Your task to perform on an android device: View the shopping cart on amazon. Search for logitech g502 on amazon, select the first entry, and add it to the cart. Image 0: 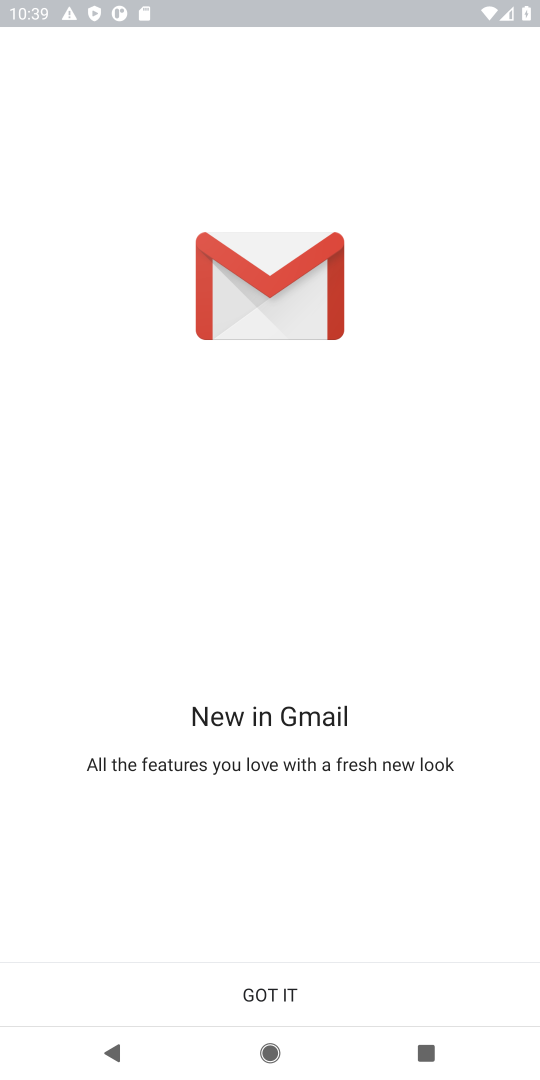
Step 0: press home button
Your task to perform on an android device: View the shopping cart on amazon. Search for logitech g502 on amazon, select the first entry, and add it to the cart. Image 1: 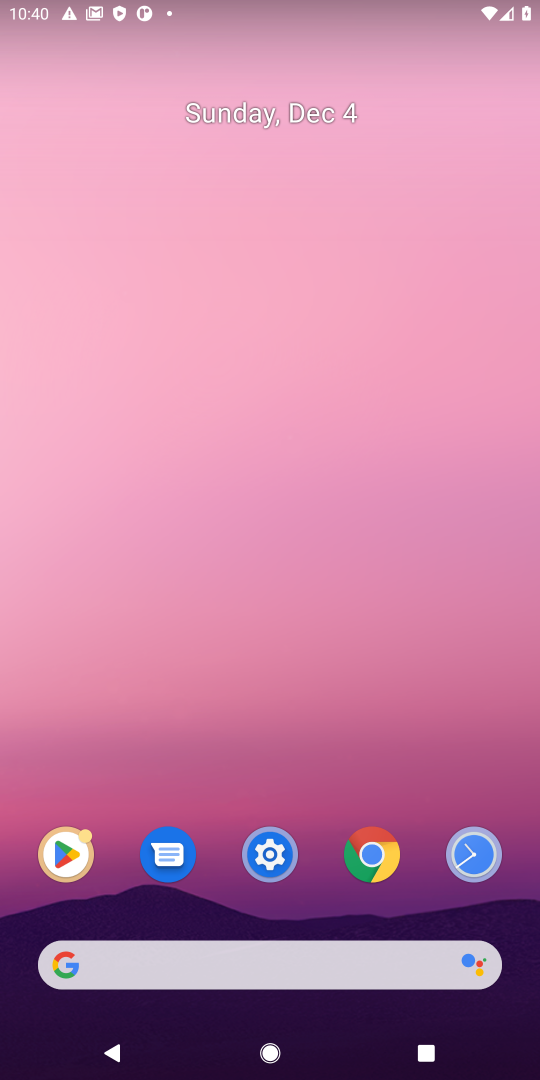
Step 1: click (229, 966)
Your task to perform on an android device: View the shopping cart on amazon. Search for logitech g502 on amazon, select the first entry, and add it to the cart. Image 2: 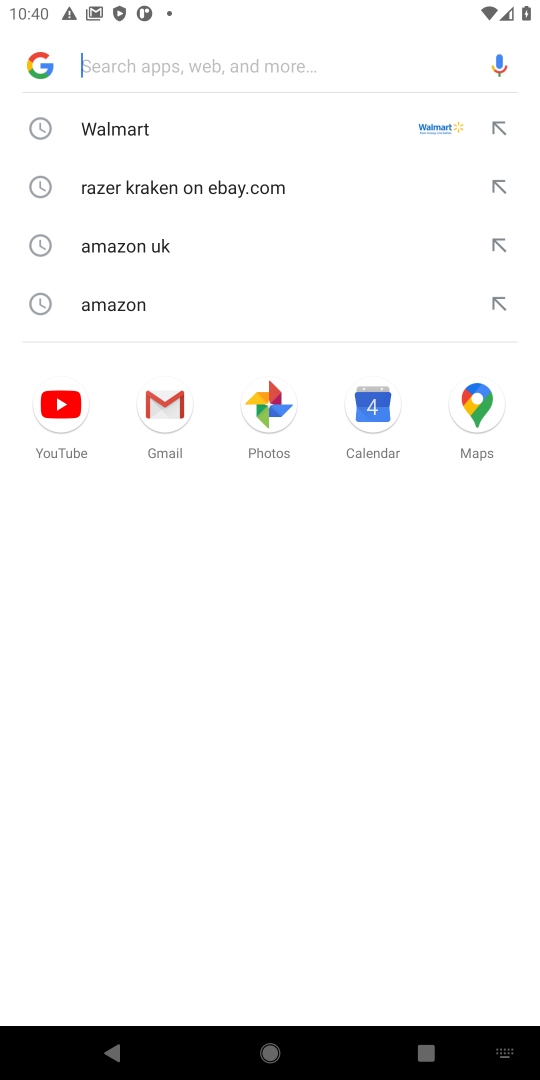
Step 2: type "amazon"
Your task to perform on an android device: View the shopping cart on amazon. Search for logitech g502 on amazon, select the first entry, and add it to the cart. Image 3: 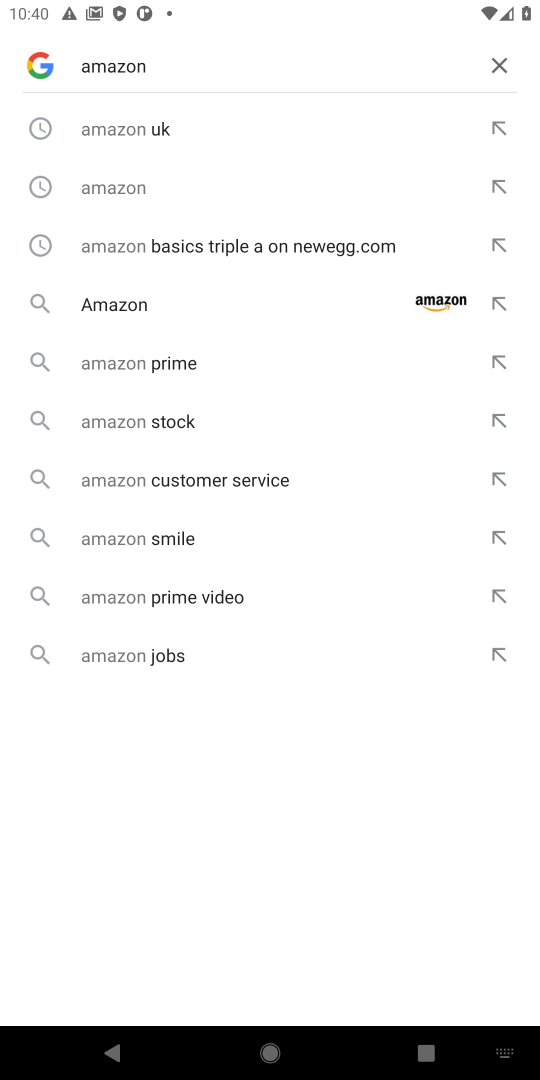
Step 3: click (96, 209)
Your task to perform on an android device: View the shopping cart on amazon. Search for logitech g502 on amazon, select the first entry, and add it to the cart. Image 4: 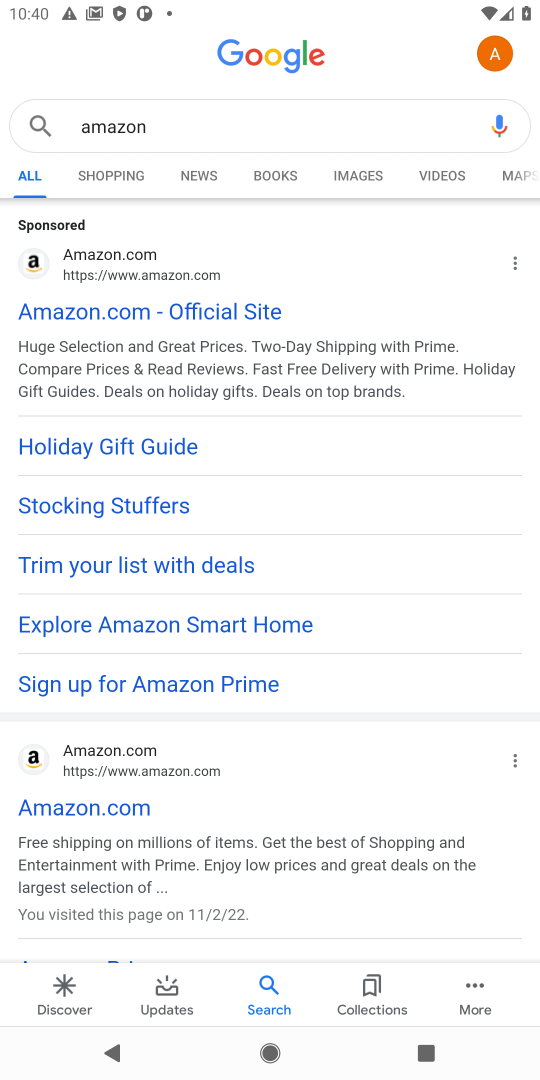
Step 4: click (160, 304)
Your task to perform on an android device: View the shopping cart on amazon. Search for logitech g502 on amazon, select the first entry, and add it to the cart. Image 5: 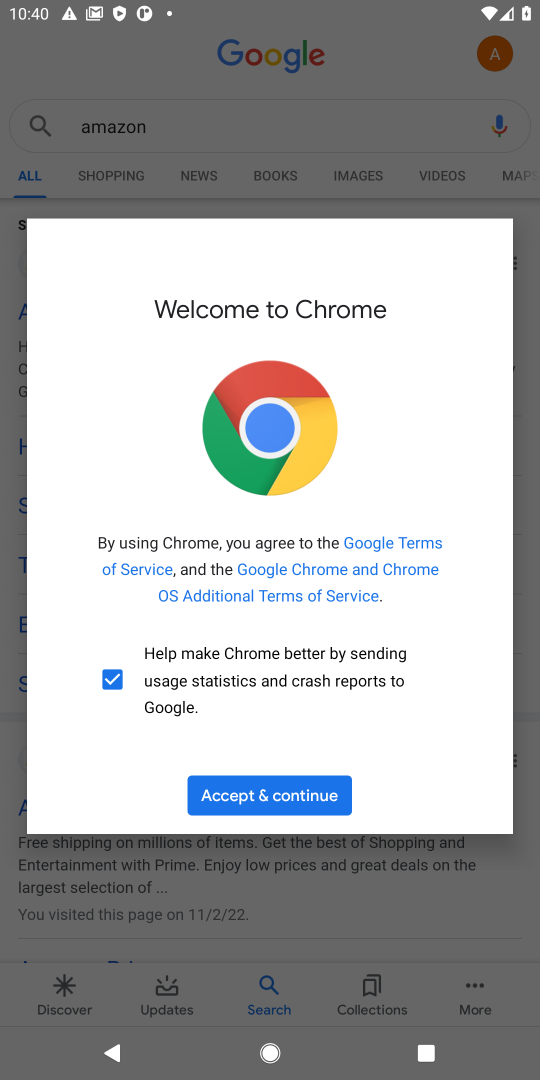
Step 5: click (332, 787)
Your task to perform on an android device: View the shopping cart on amazon. Search for logitech g502 on amazon, select the first entry, and add it to the cart. Image 6: 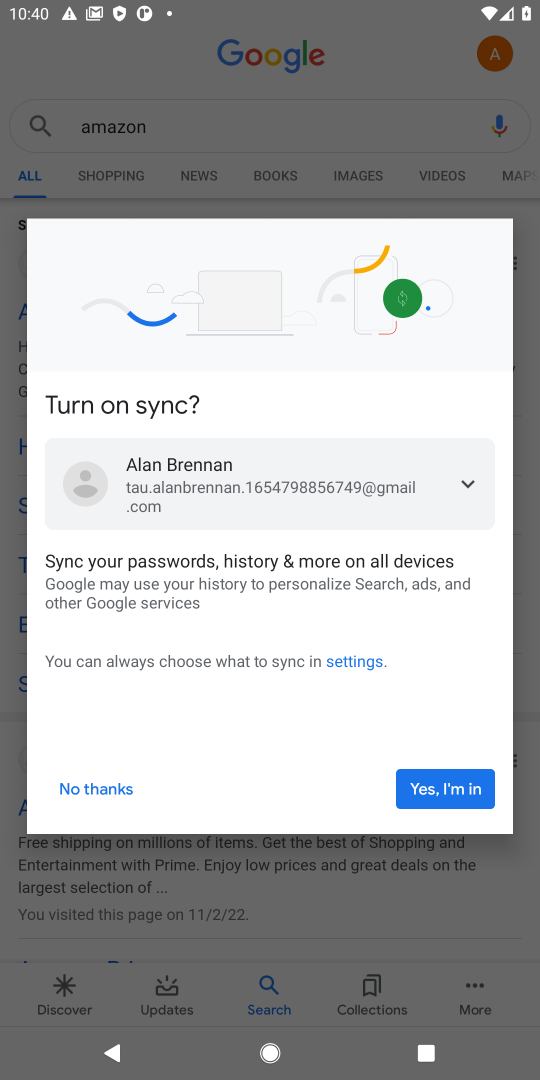
Step 6: click (423, 788)
Your task to perform on an android device: View the shopping cart on amazon. Search for logitech g502 on amazon, select the first entry, and add it to the cart. Image 7: 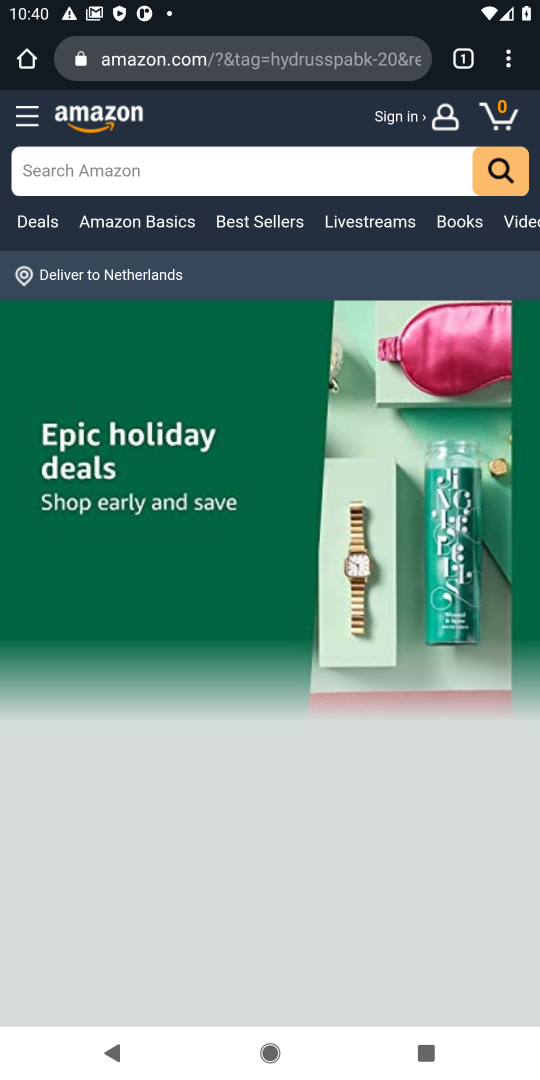
Step 7: task complete